Your task to perform on an android device: turn off improve location accuracy Image 0: 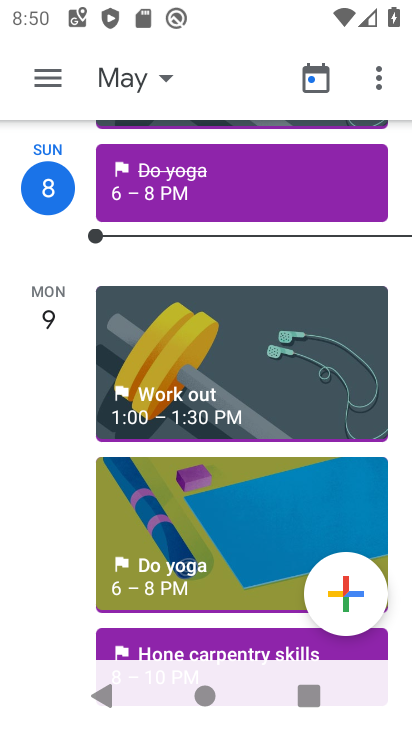
Step 0: press back button
Your task to perform on an android device: turn off improve location accuracy Image 1: 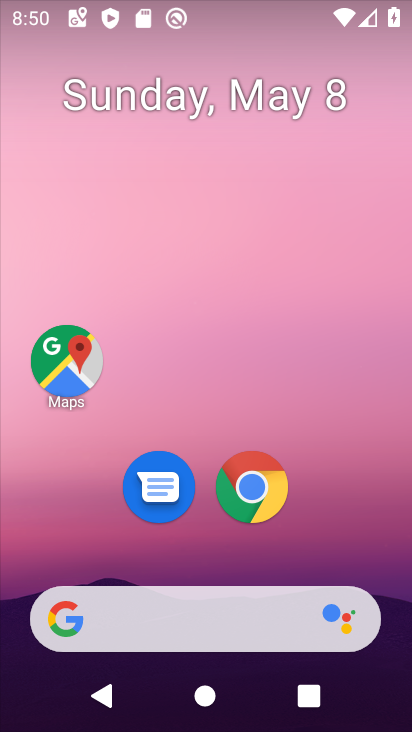
Step 1: drag from (190, 559) to (207, 69)
Your task to perform on an android device: turn off improve location accuracy Image 2: 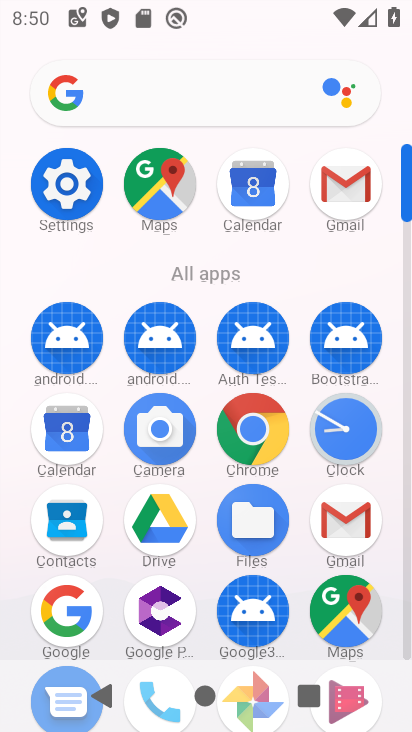
Step 2: click (31, 168)
Your task to perform on an android device: turn off improve location accuracy Image 3: 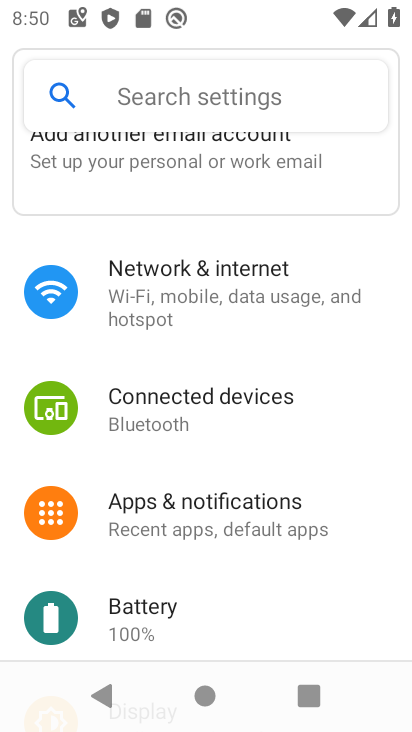
Step 3: drag from (237, 616) to (239, 270)
Your task to perform on an android device: turn off improve location accuracy Image 4: 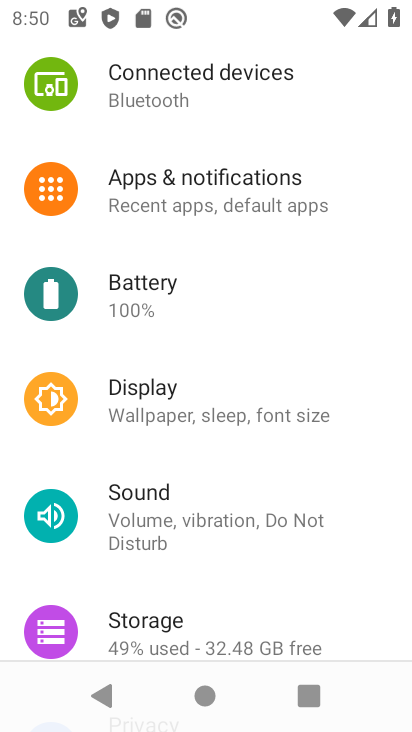
Step 4: drag from (254, 615) to (246, 340)
Your task to perform on an android device: turn off improve location accuracy Image 5: 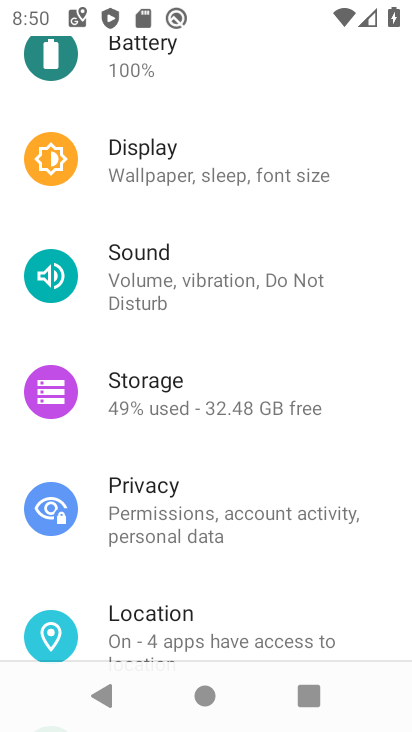
Step 5: click (225, 617)
Your task to perform on an android device: turn off improve location accuracy Image 6: 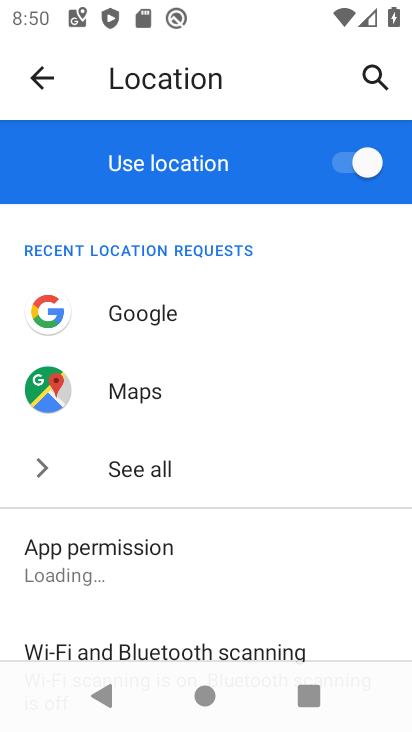
Step 6: drag from (183, 592) to (224, 212)
Your task to perform on an android device: turn off improve location accuracy Image 7: 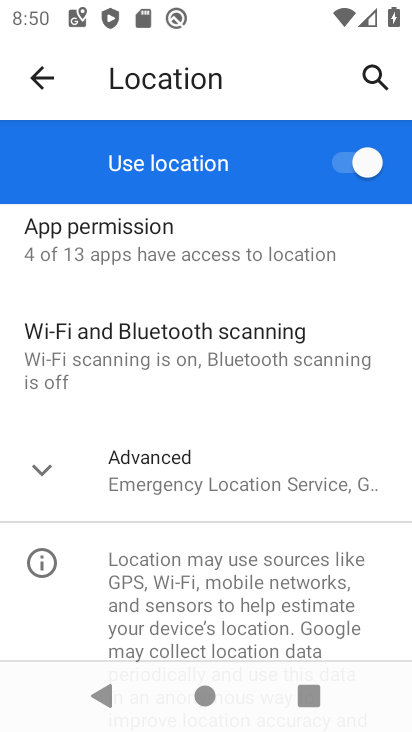
Step 7: click (121, 454)
Your task to perform on an android device: turn off improve location accuracy Image 8: 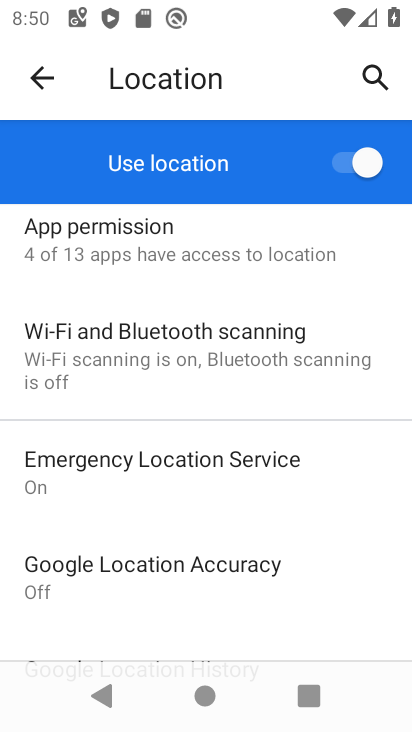
Step 8: click (153, 578)
Your task to perform on an android device: turn off improve location accuracy Image 9: 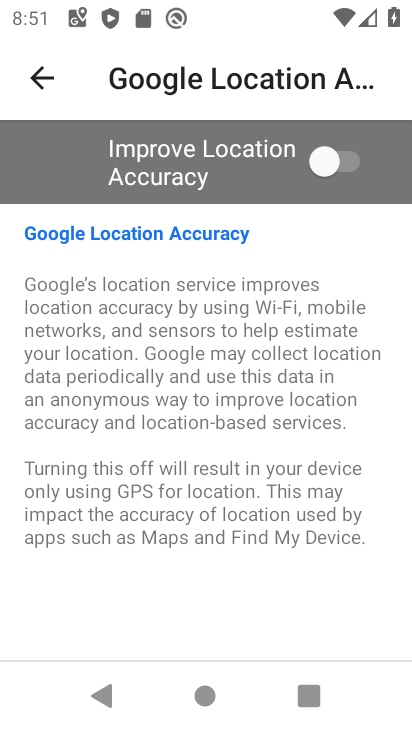
Step 9: task complete